Your task to perform on an android device: Go to ESPN.com Image 0: 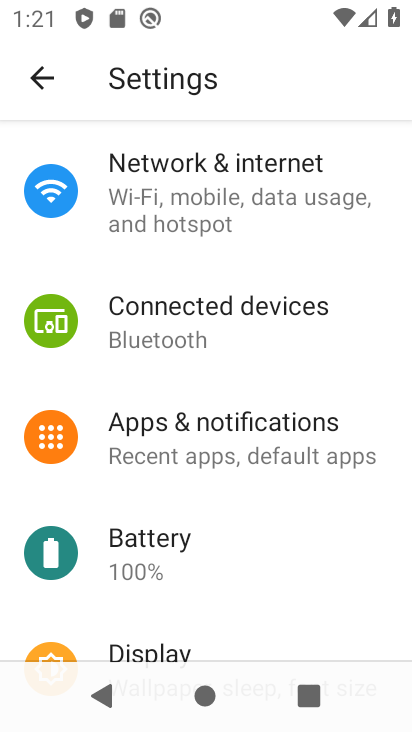
Step 0: press home button
Your task to perform on an android device: Go to ESPN.com Image 1: 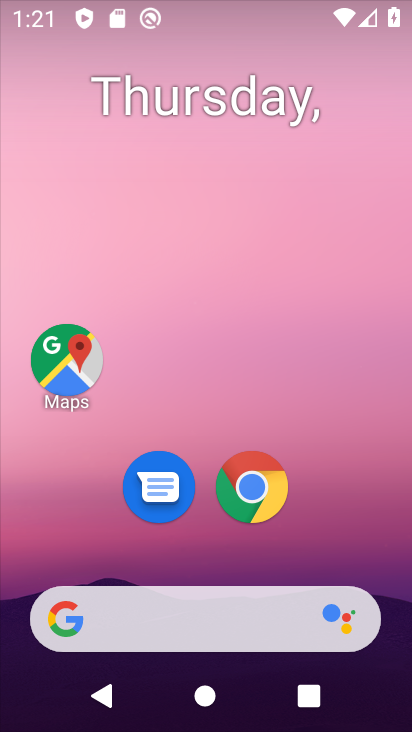
Step 1: click (249, 499)
Your task to perform on an android device: Go to ESPN.com Image 2: 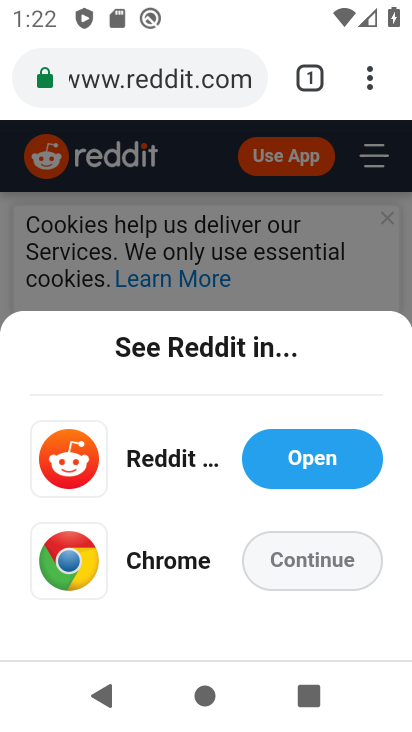
Step 2: click (303, 79)
Your task to perform on an android device: Go to ESPN.com Image 3: 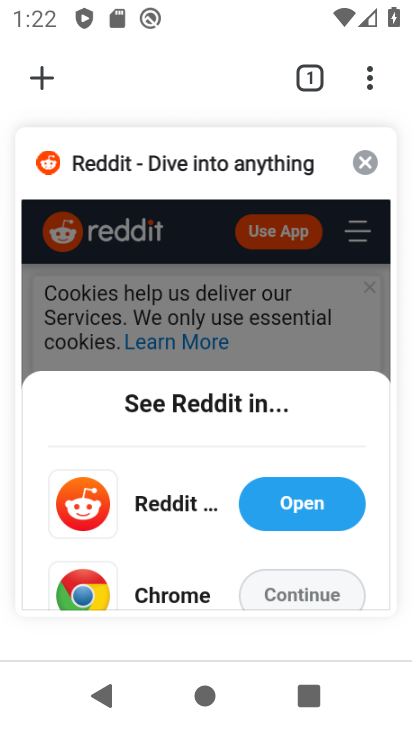
Step 3: click (51, 84)
Your task to perform on an android device: Go to ESPN.com Image 4: 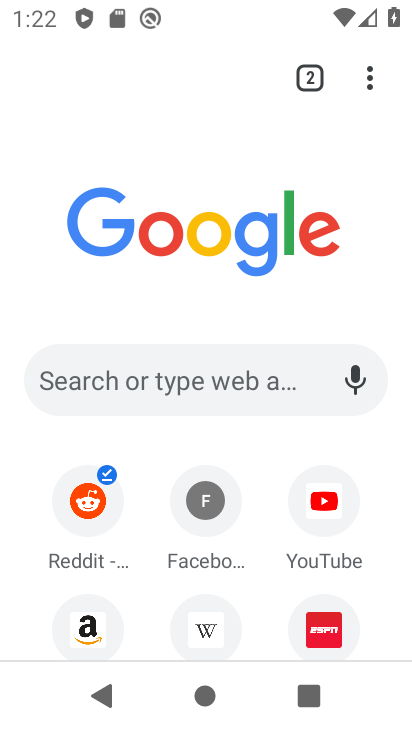
Step 4: click (335, 619)
Your task to perform on an android device: Go to ESPN.com Image 5: 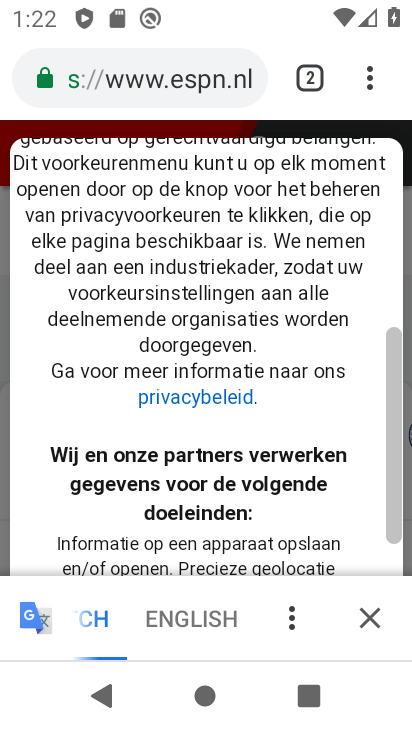
Step 5: task complete